Your task to perform on an android device: Open Chrome and go to settings Image 0: 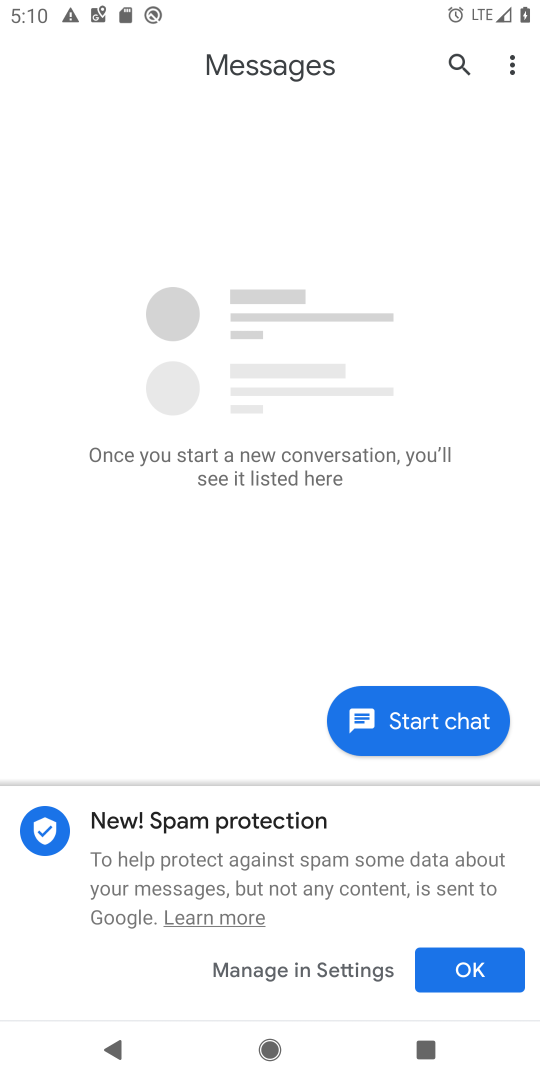
Step 0: press back button
Your task to perform on an android device: Open Chrome and go to settings Image 1: 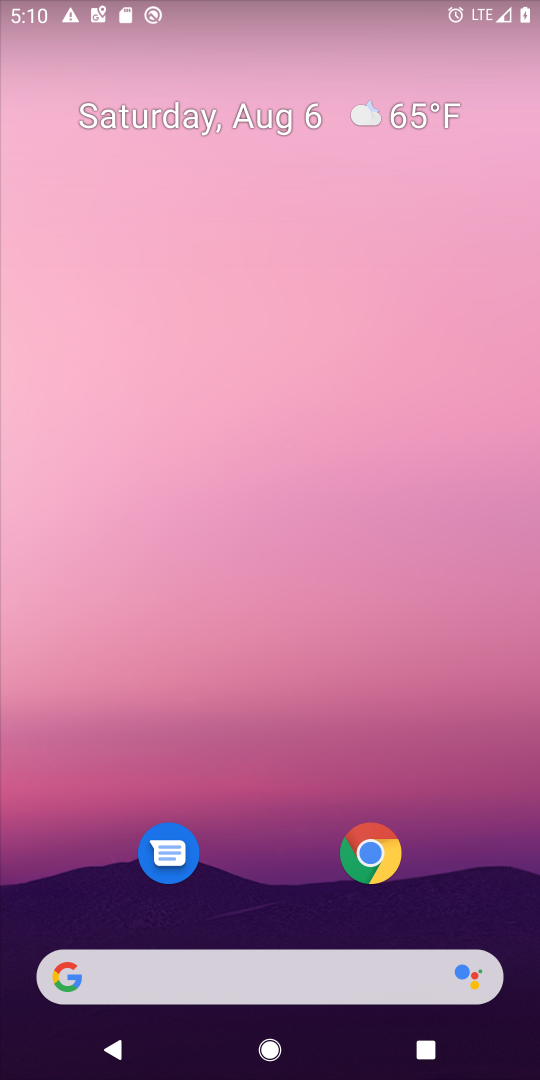
Step 1: click (385, 853)
Your task to perform on an android device: Open Chrome and go to settings Image 2: 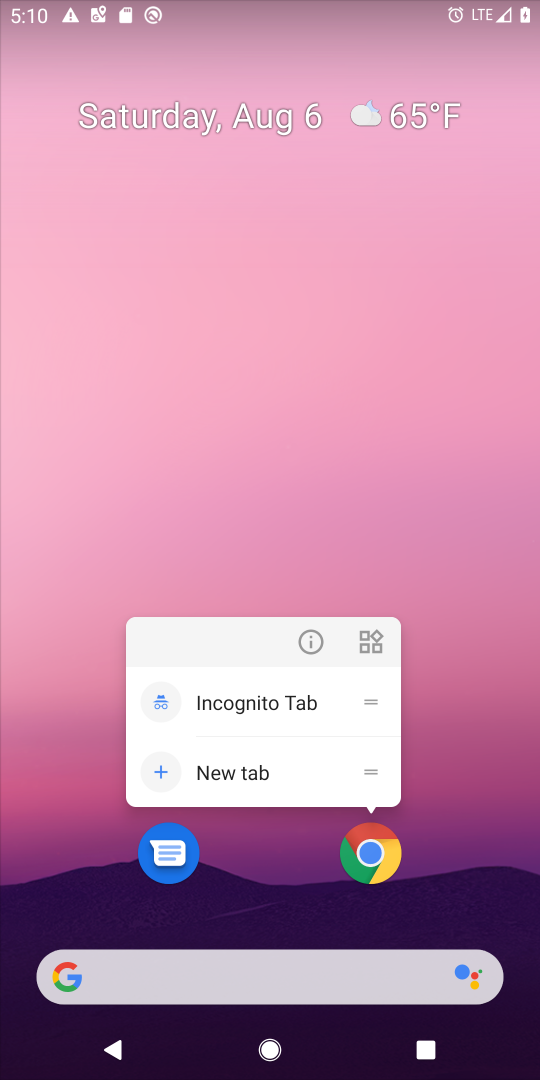
Step 2: click (368, 858)
Your task to perform on an android device: Open Chrome and go to settings Image 3: 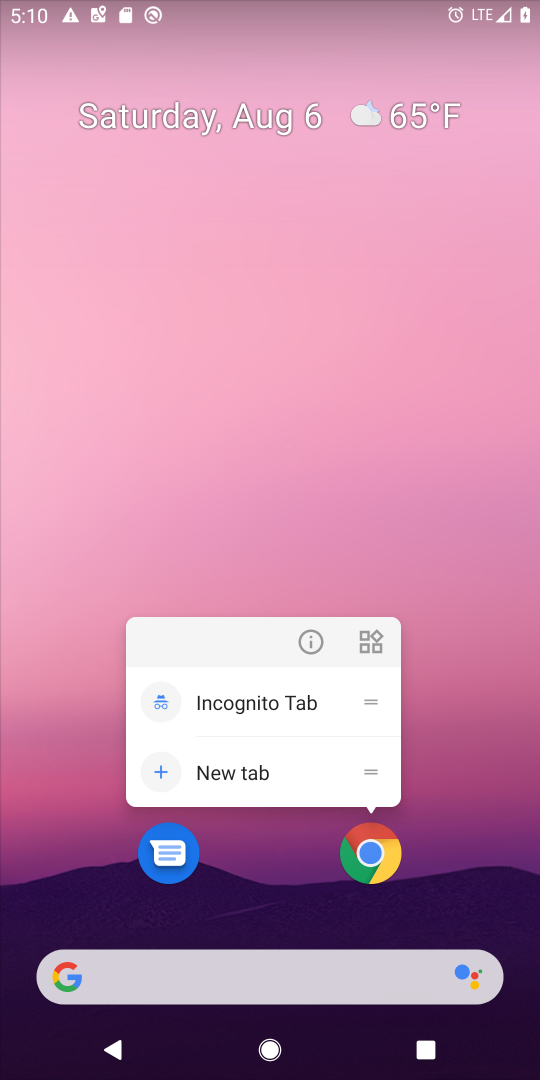
Step 3: click (370, 855)
Your task to perform on an android device: Open Chrome and go to settings Image 4: 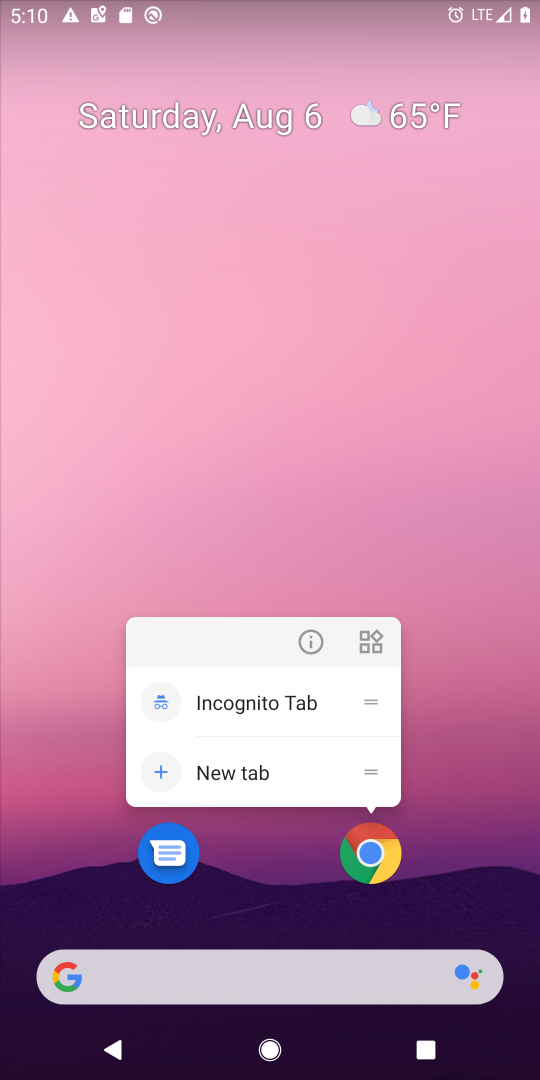
Step 4: click (370, 855)
Your task to perform on an android device: Open Chrome and go to settings Image 5: 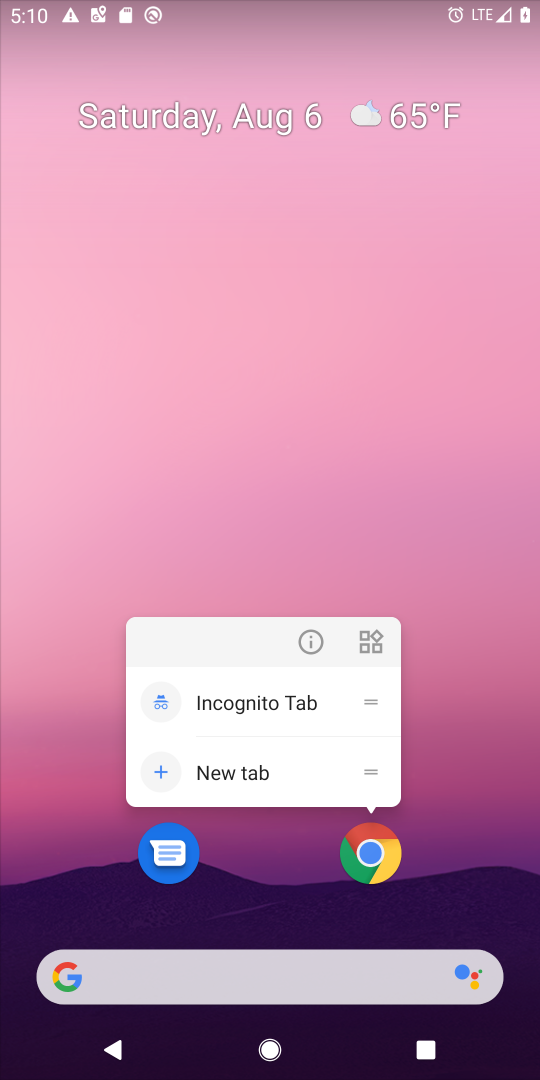
Step 5: click (370, 854)
Your task to perform on an android device: Open Chrome and go to settings Image 6: 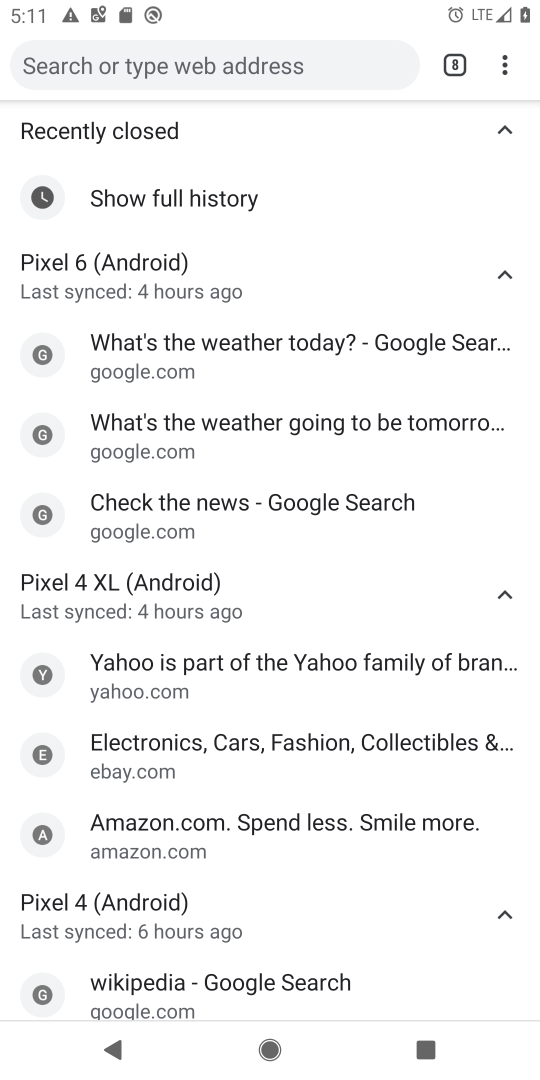
Step 6: task complete